Your task to perform on an android device: turn off data saver in the chrome app Image 0: 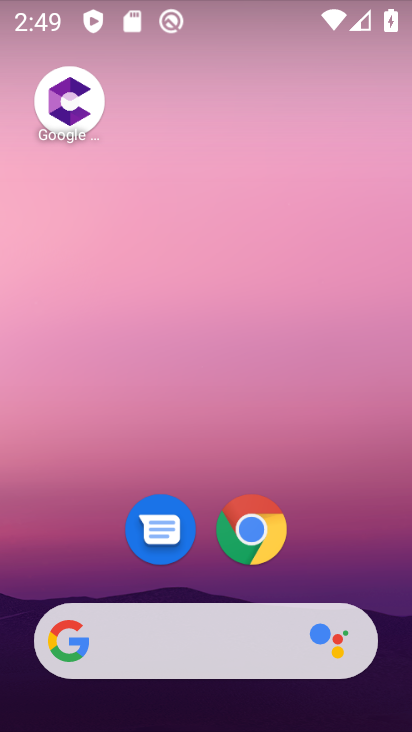
Step 0: click (252, 530)
Your task to perform on an android device: turn off data saver in the chrome app Image 1: 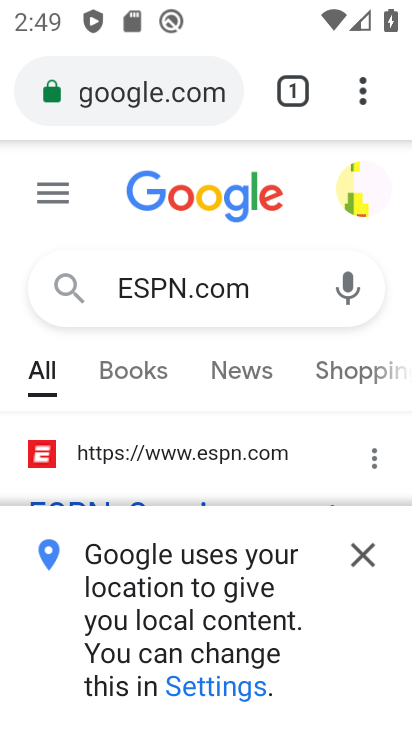
Step 1: click (361, 83)
Your task to perform on an android device: turn off data saver in the chrome app Image 2: 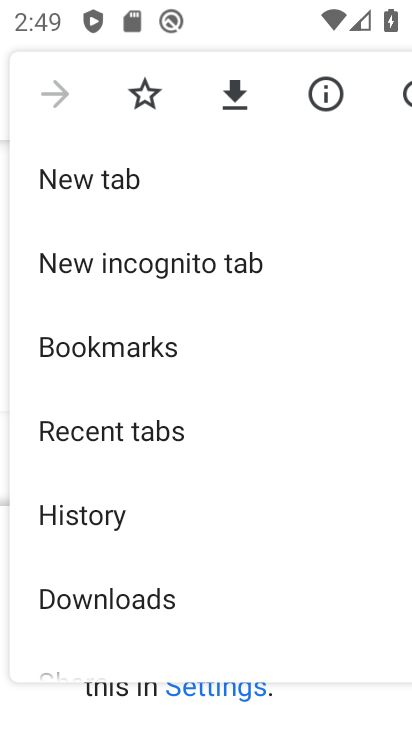
Step 2: drag from (229, 457) to (227, 288)
Your task to perform on an android device: turn off data saver in the chrome app Image 3: 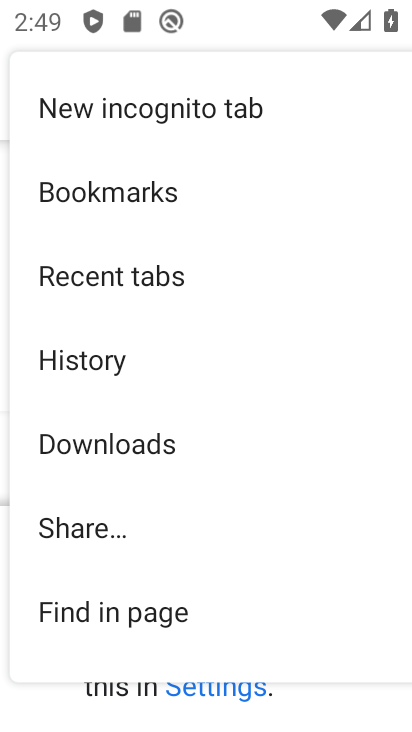
Step 3: drag from (268, 596) to (244, 281)
Your task to perform on an android device: turn off data saver in the chrome app Image 4: 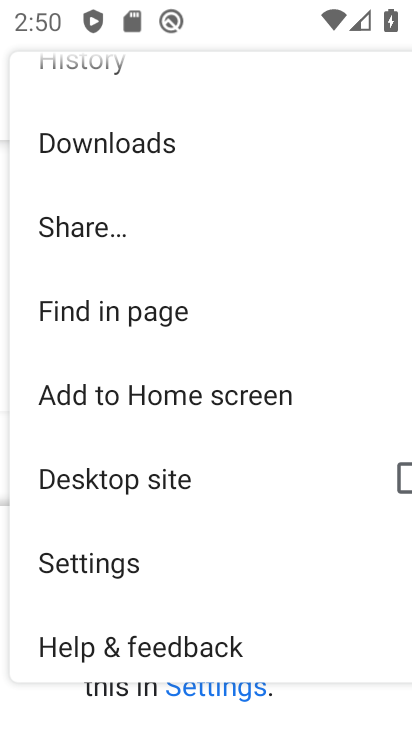
Step 4: click (105, 566)
Your task to perform on an android device: turn off data saver in the chrome app Image 5: 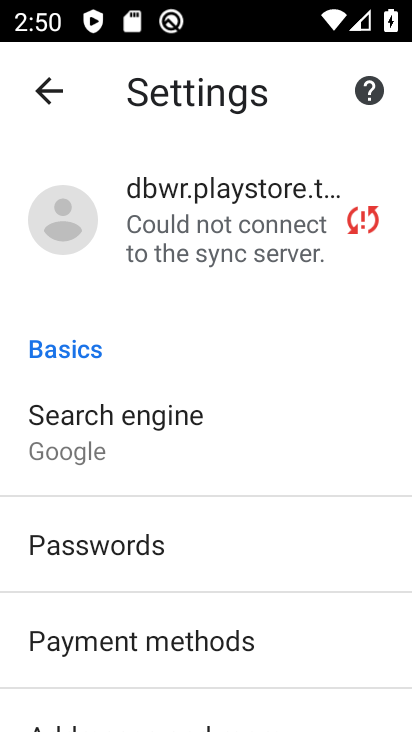
Step 5: drag from (310, 699) to (283, 384)
Your task to perform on an android device: turn off data saver in the chrome app Image 6: 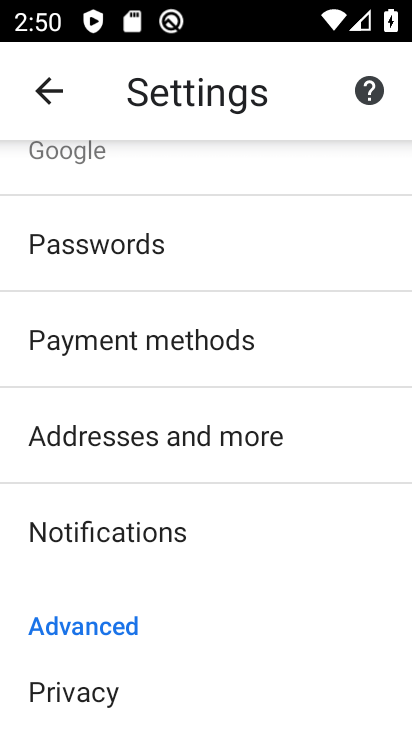
Step 6: drag from (283, 558) to (274, 308)
Your task to perform on an android device: turn off data saver in the chrome app Image 7: 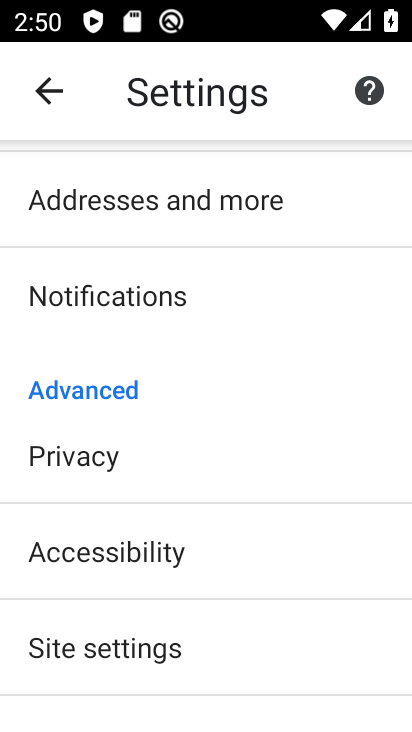
Step 7: drag from (241, 674) to (234, 400)
Your task to perform on an android device: turn off data saver in the chrome app Image 8: 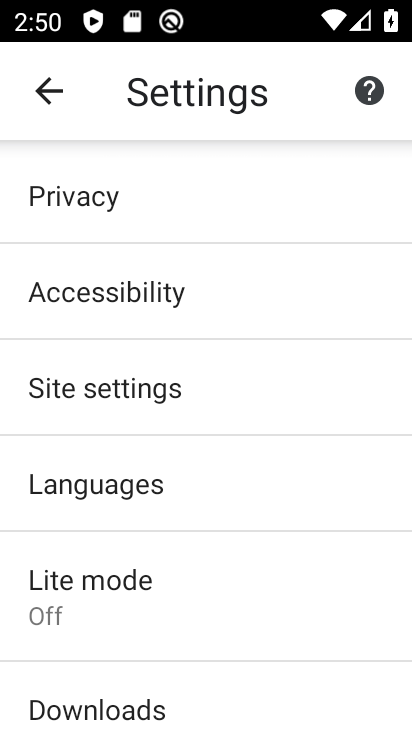
Step 8: click (121, 484)
Your task to perform on an android device: turn off data saver in the chrome app Image 9: 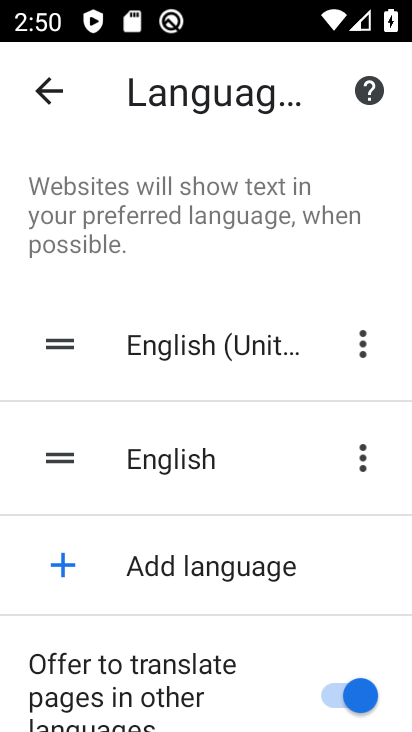
Step 9: click (39, 87)
Your task to perform on an android device: turn off data saver in the chrome app Image 10: 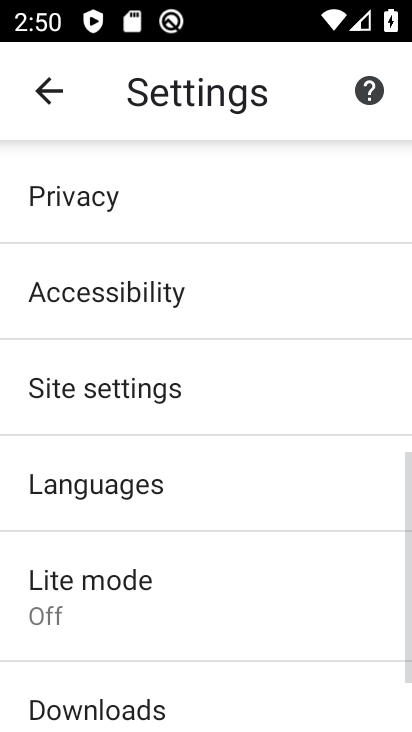
Step 10: click (117, 595)
Your task to perform on an android device: turn off data saver in the chrome app Image 11: 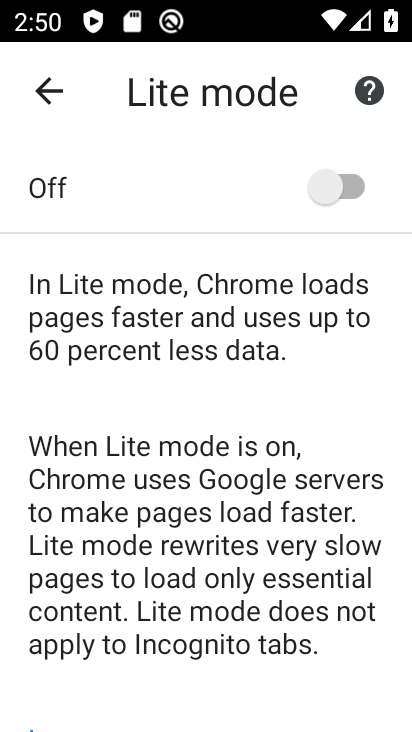
Step 11: task complete